Your task to perform on an android device: Open maps Image 0: 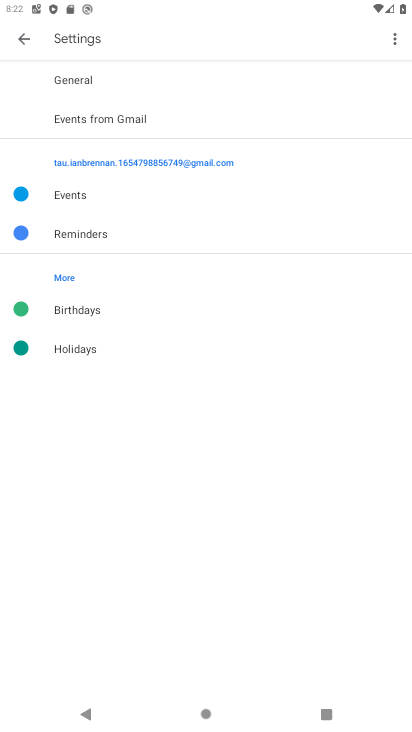
Step 0: press home button
Your task to perform on an android device: Open maps Image 1: 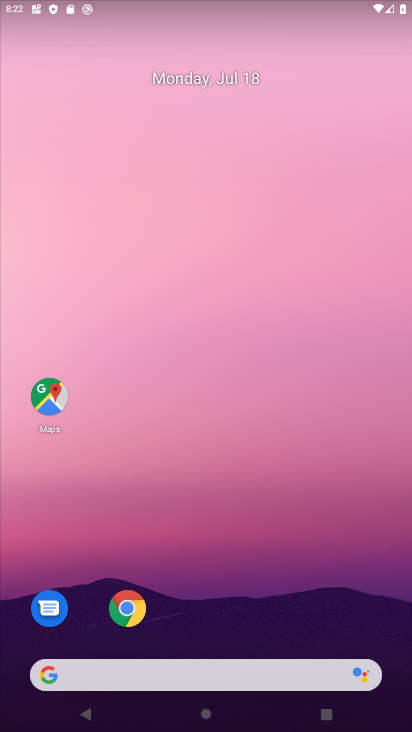
Step 1: drag from (236, 711) to (253, 220)
Your task to perform on an android device: Open maps Image 2: 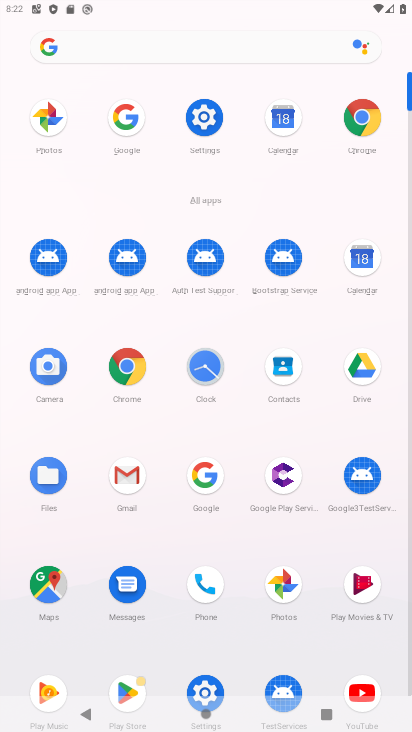
Step 2: click (44, 585)
Your task to perform on an android device: Open maps Image 3: 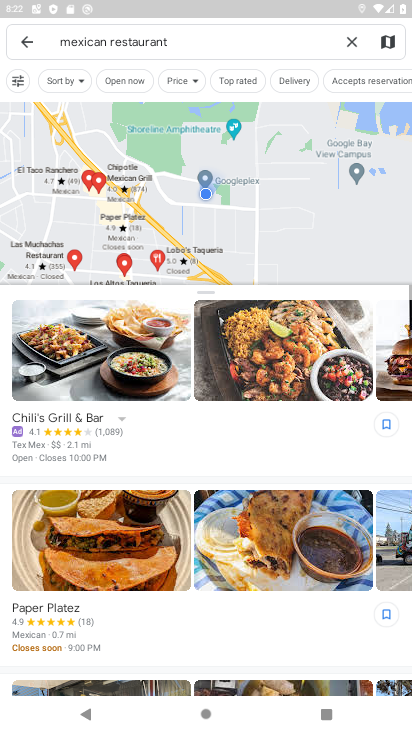
Step 3: task complete